Your task to perform on an android device: open app "Walmart Shopping & Grocery" (install if not already installed) Image 0: 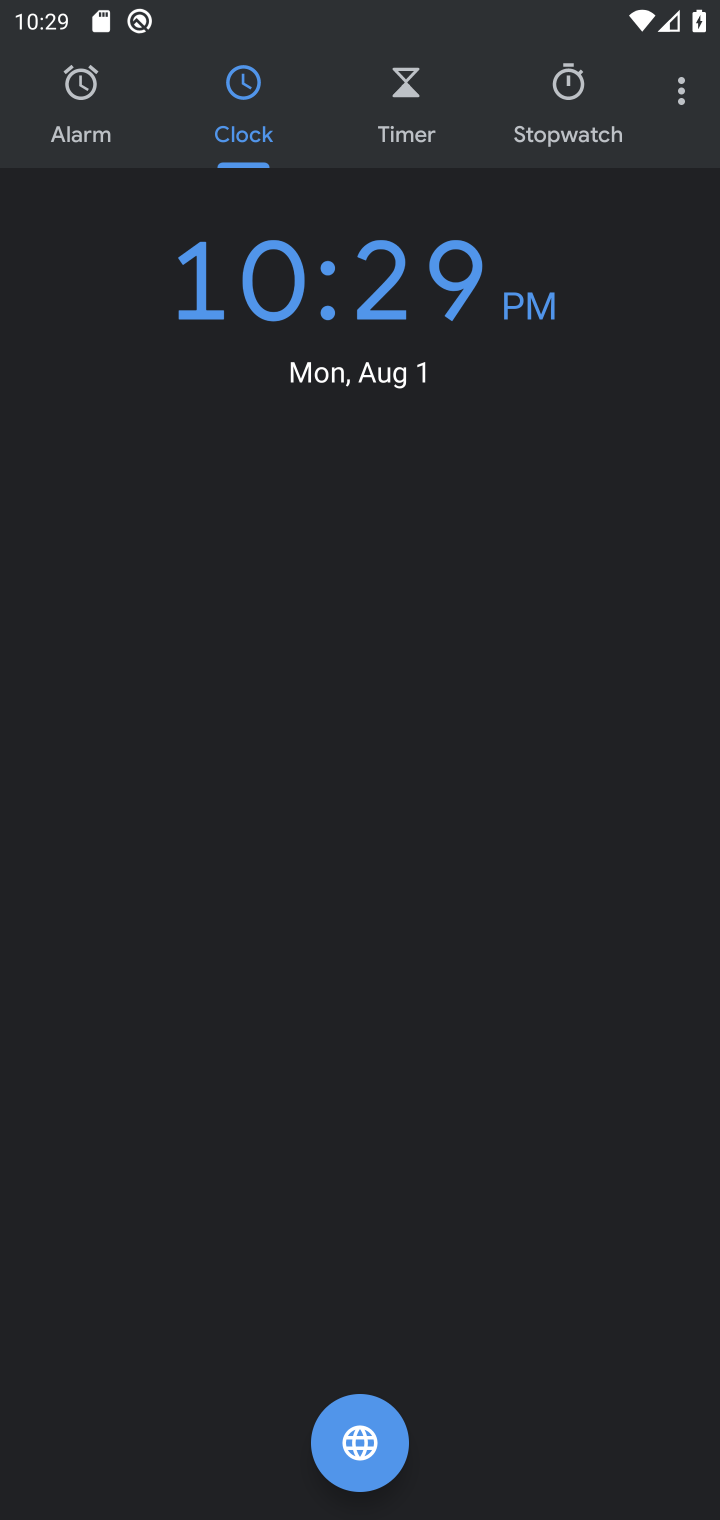
Step 0: press home button
Your task to perform on an android device: open app "Walmart Shopping & Grocery" (install if not already installed) Image 1: 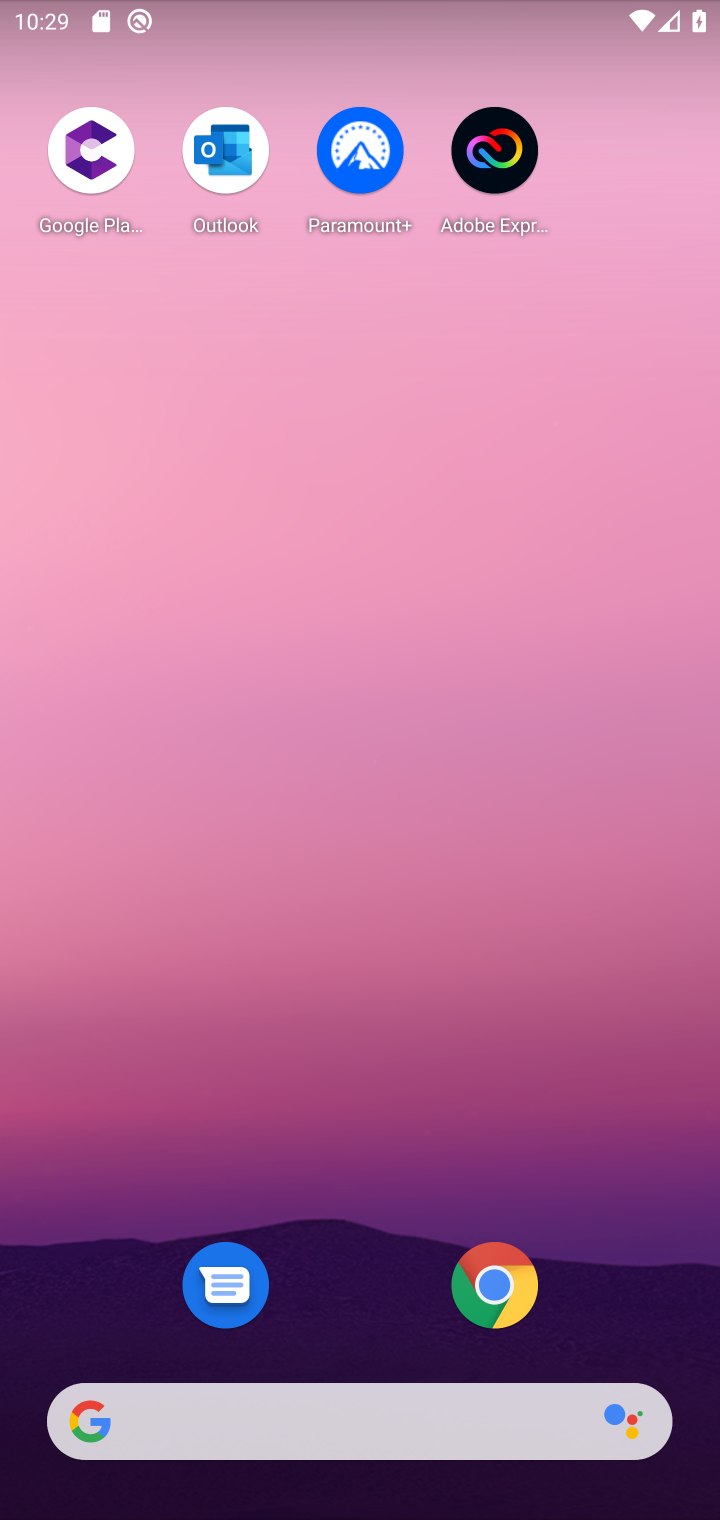
Step 1: drag from (211, 1370) to (301, 204)
Your task to perform on an android device: open app "Walmart Shopping & Grocery" (install if not already installed) Image 2: 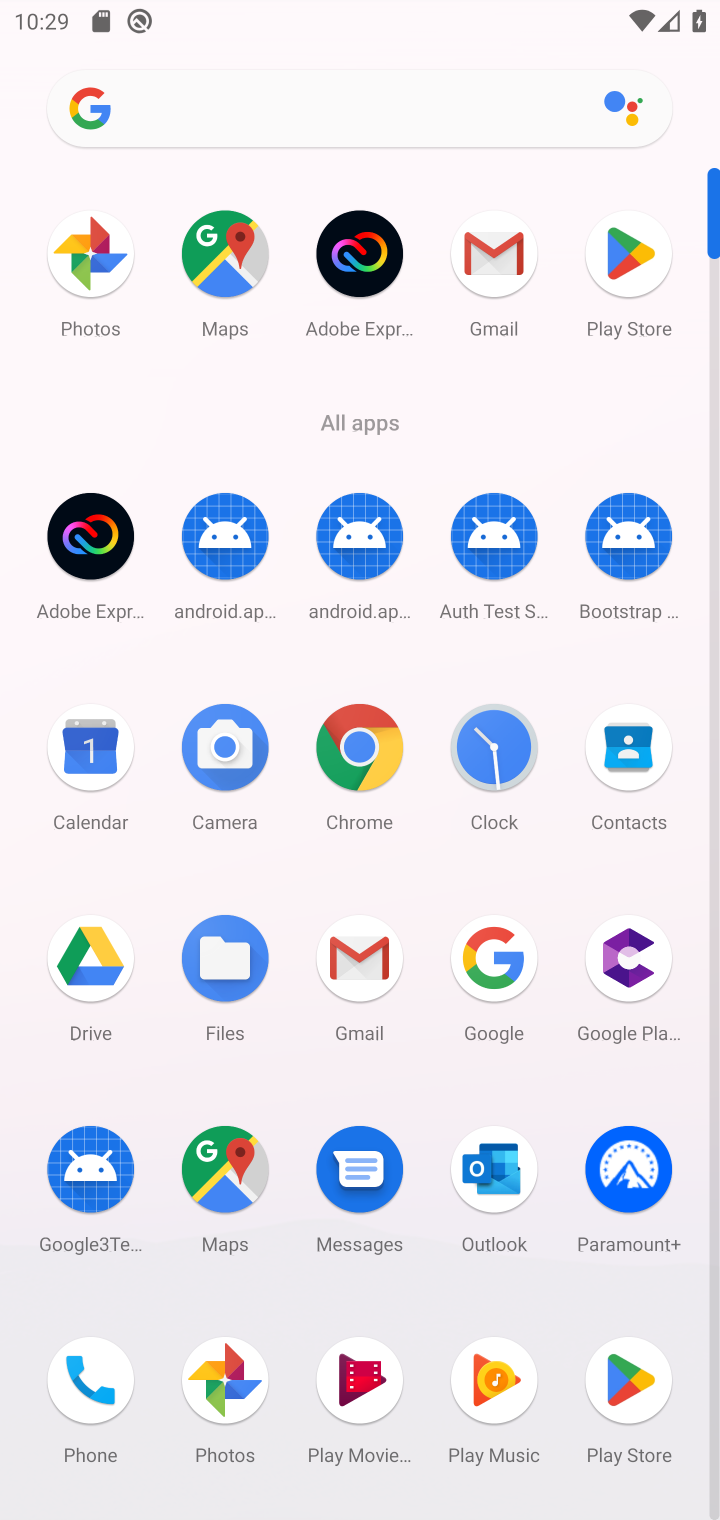
Step 2: click (618, 1387)
Your task to perform on an android device: open app "Walmart Shopping & Grocery" (install if not already installed) Image 3: 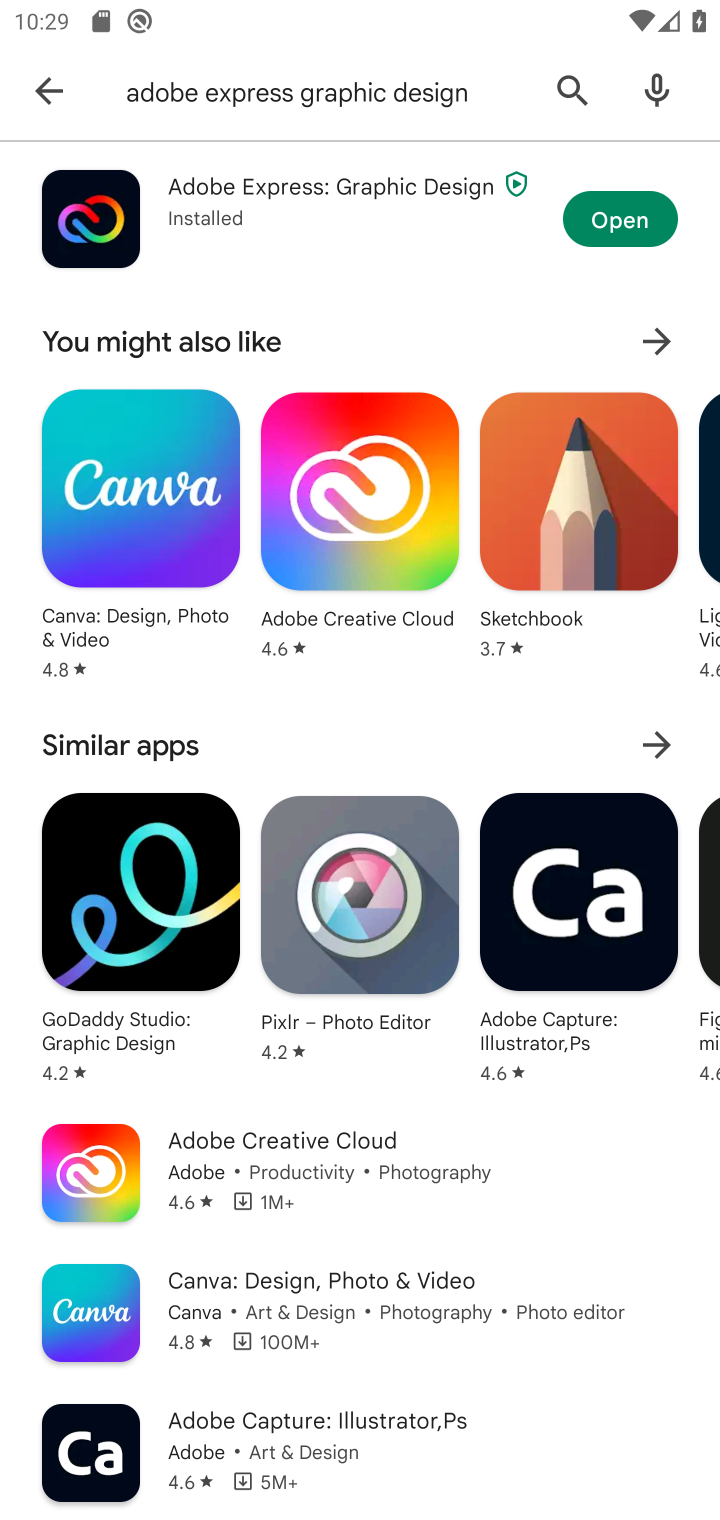
Step 3: click (577, 82)
Your task to perform on an android device: open app "Walmart Shopping & Grocery" (install if not already installed) Image 4: 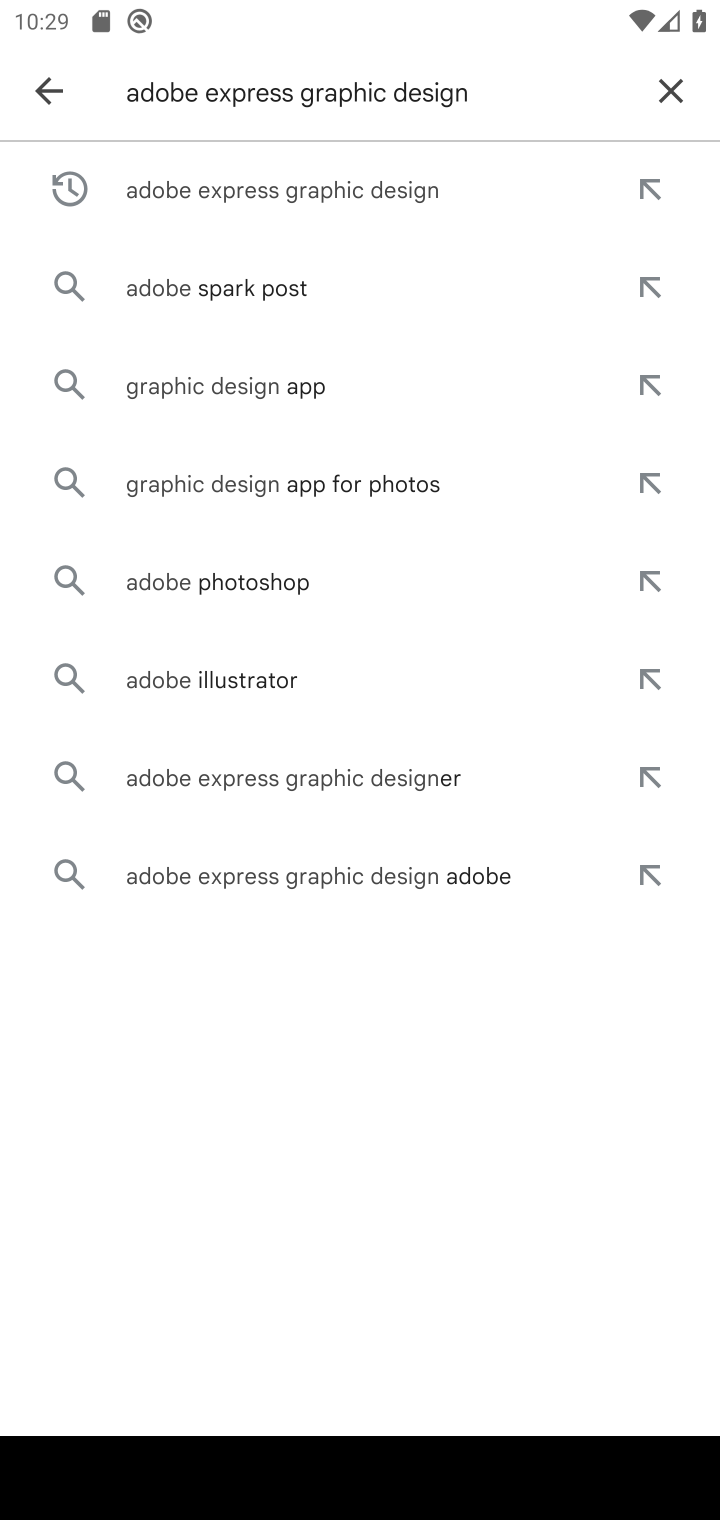
Step 4: click (675, 88)
Your task to perform on an android device: open app "Walmart Shopping & Grocery" (install if not already installed) Image 5: 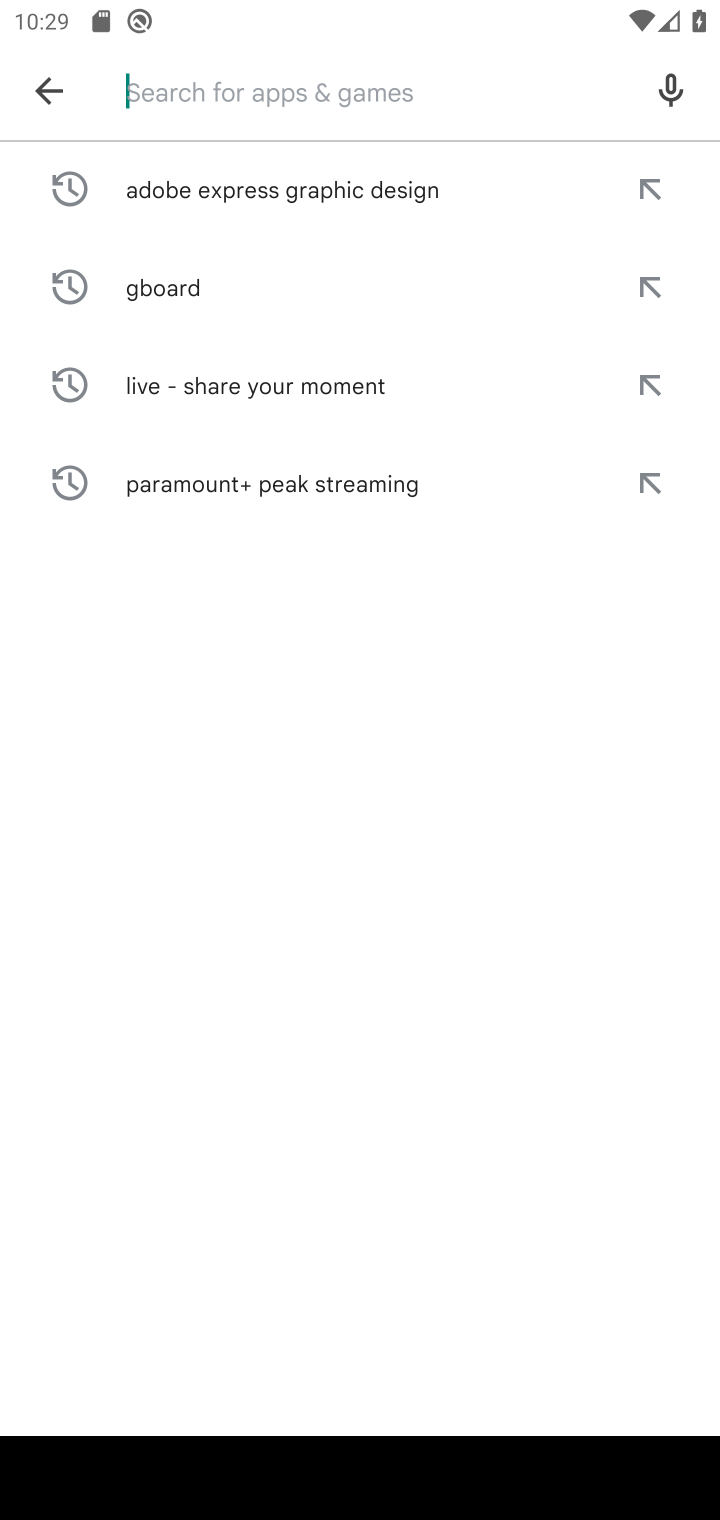
Step 5: type "Walmart Shopping & Grocery"
Your task to perform on an android device: open app "Walmart Shopping & Grocery" (install if not already installed) Image 6: 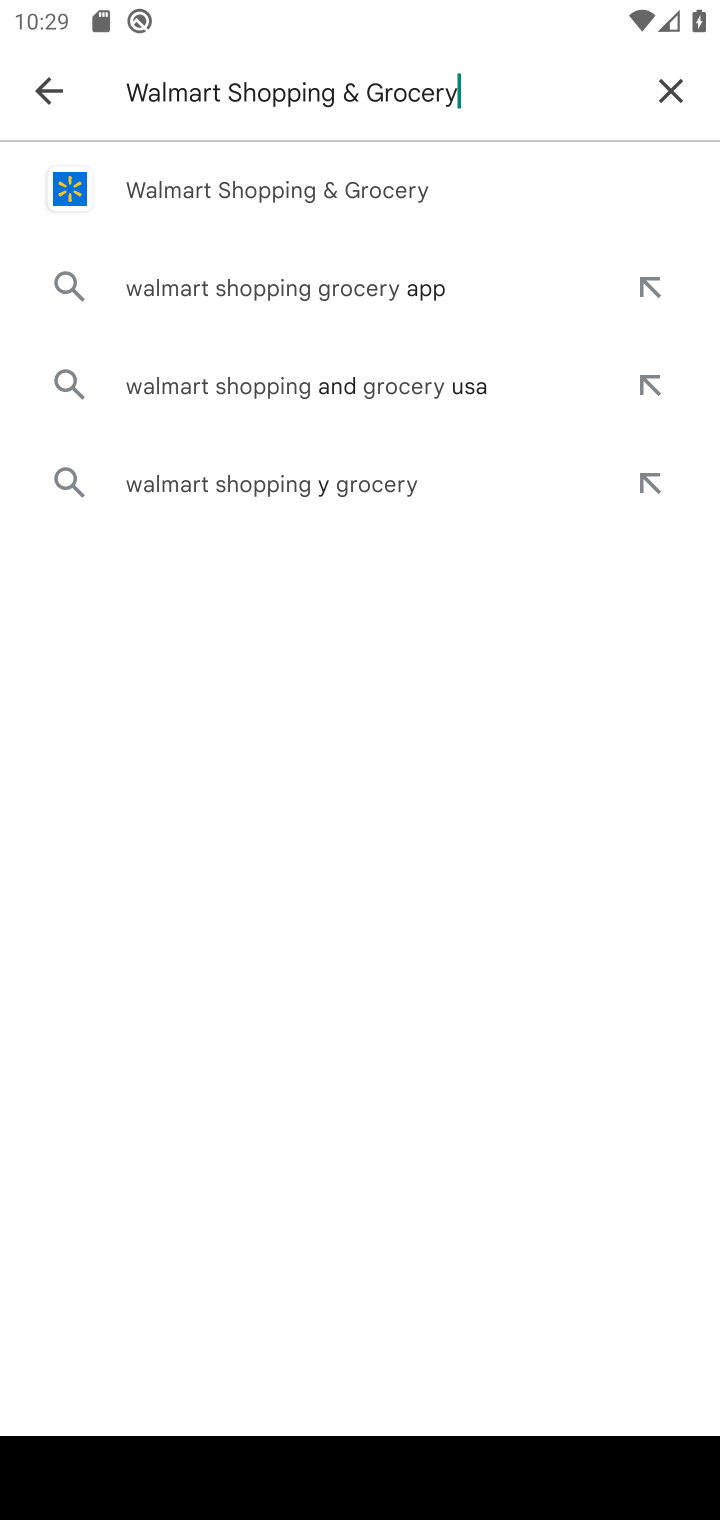
Step 6: click (174, 182)
Your task to perform on an android device: open app "Walmart Shopping & Grocery" (install if not already installed) Image 7: 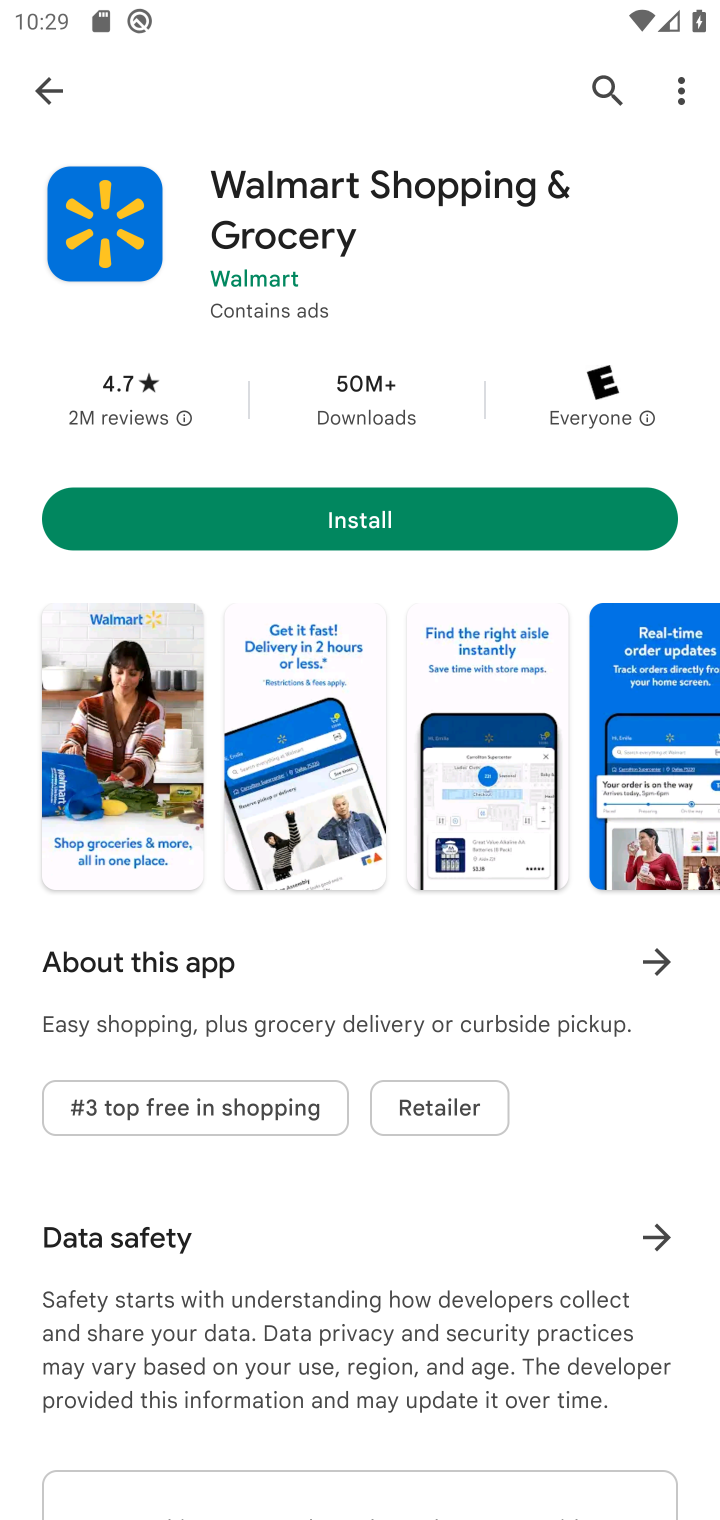
Step 7: click (382, 512)
Your task to perform on an android device: open app "Walmart Shopping & Grocery" (install if not already installed) Image 8: 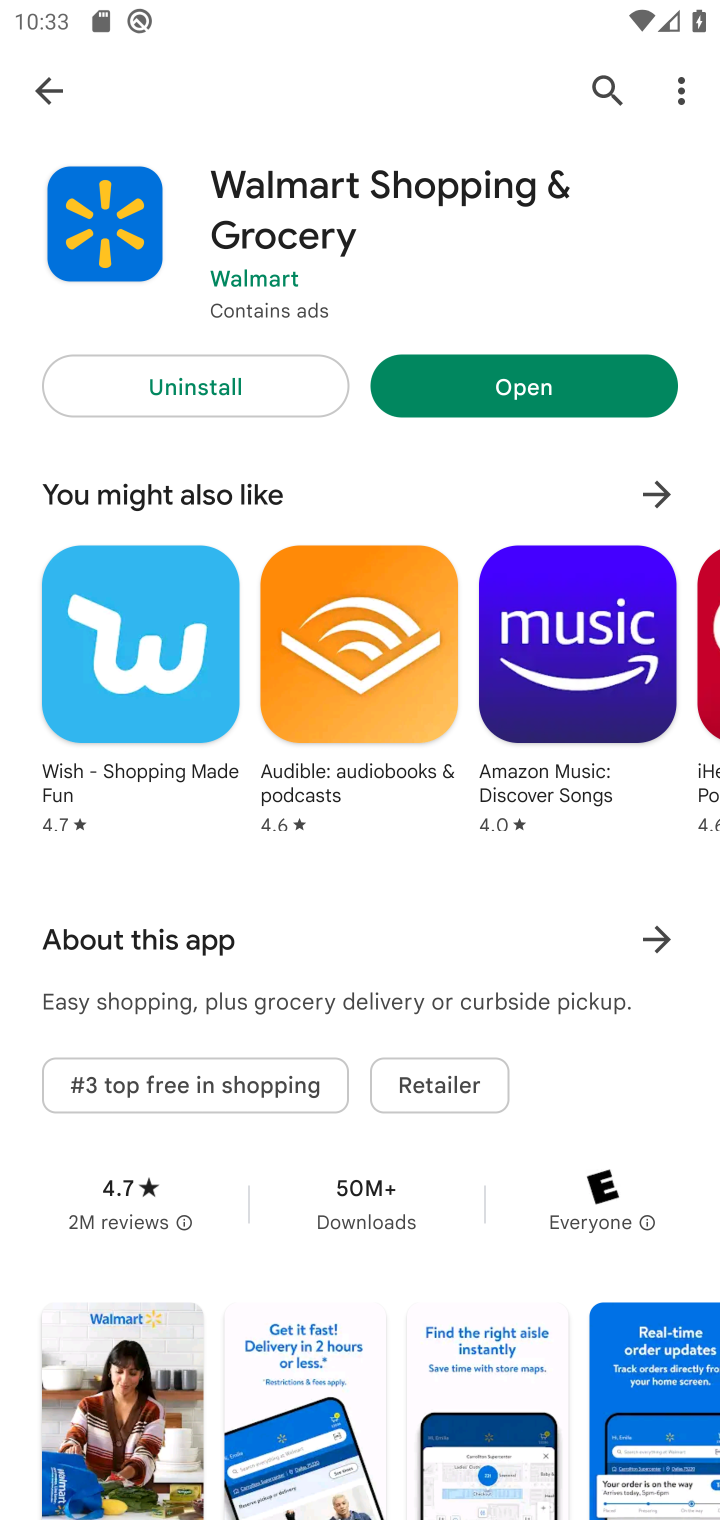
Step 8: click (511, 390)
Your task to perform on an android device: open app "Walmart Shopping & Grocery" (install if not already installed) Image 9: 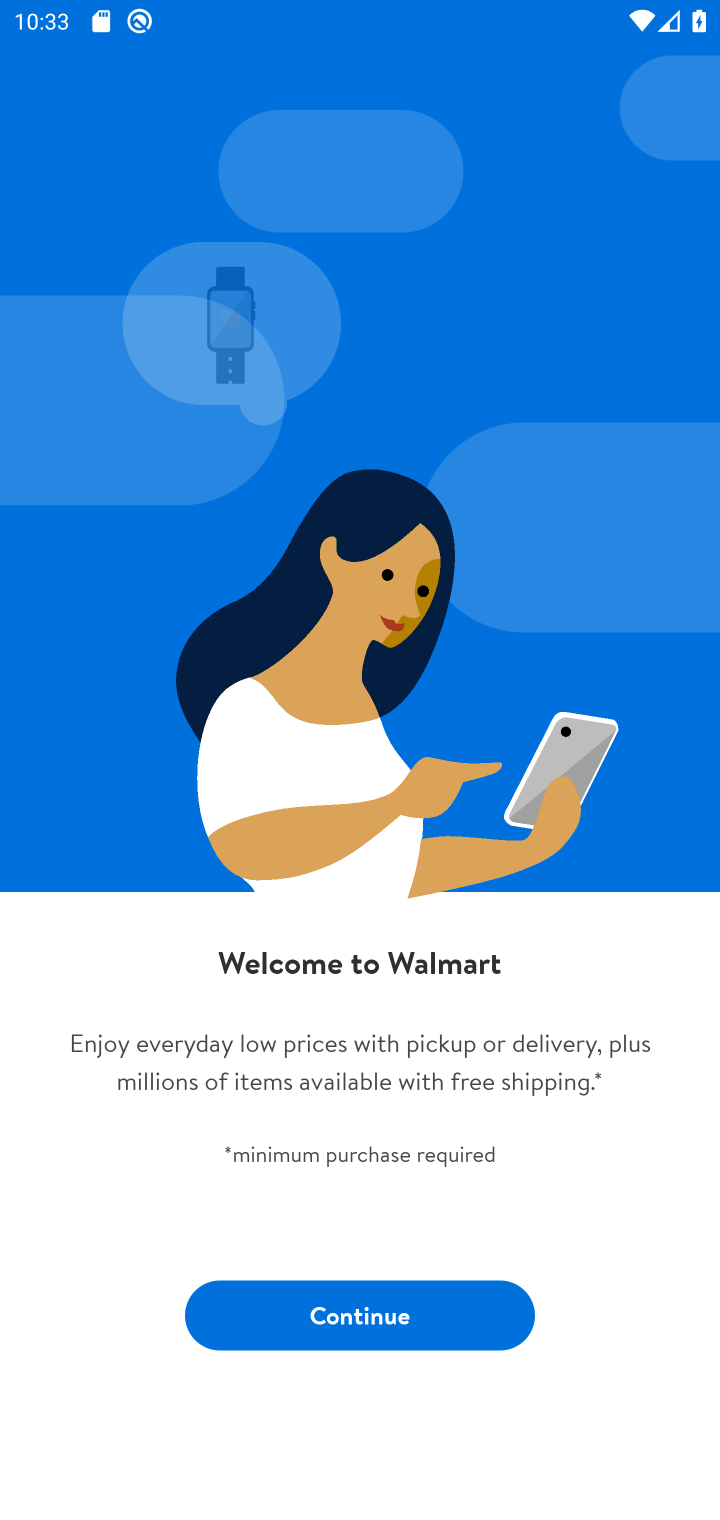
Step 9: task complete